Your task to perform on an android device: check android version Image 0: 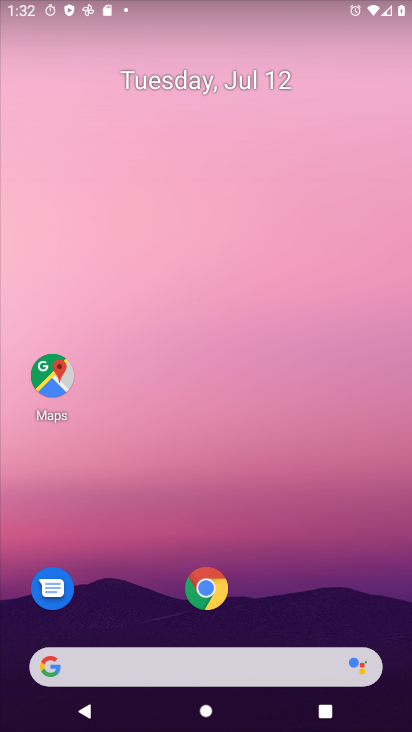
Step 0: click (205, 584)
Your task to perform on an android device: check android version Image 1: 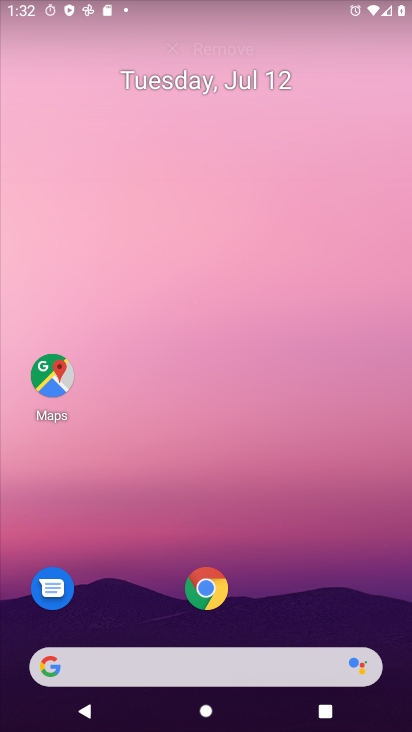
Step 1: click (312, 434)
Your task to perform on an android device: check android version Image 2: 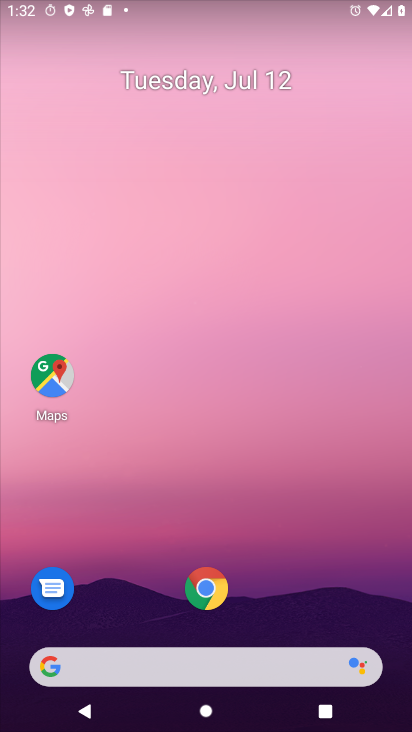
Step 2: click (212, 574)
Your task to perform on an android device: check android version Image 3: 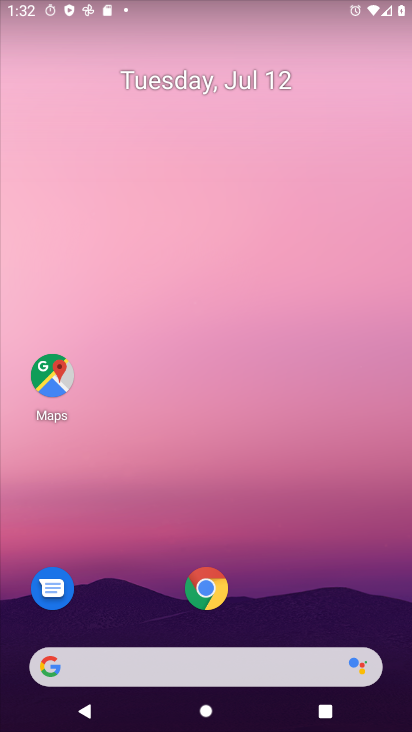
Step 3: click (316, 441)
Your task to perform on an android device: check android version Image 4: 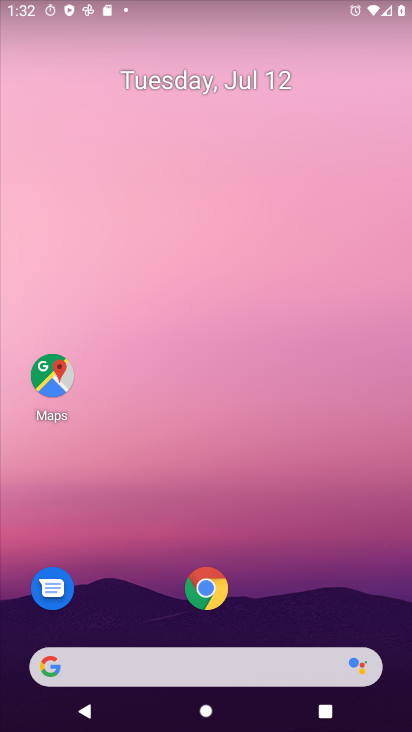
Step 4: click (213, 581)
Your task to perform on an android device: check android version Image 5: 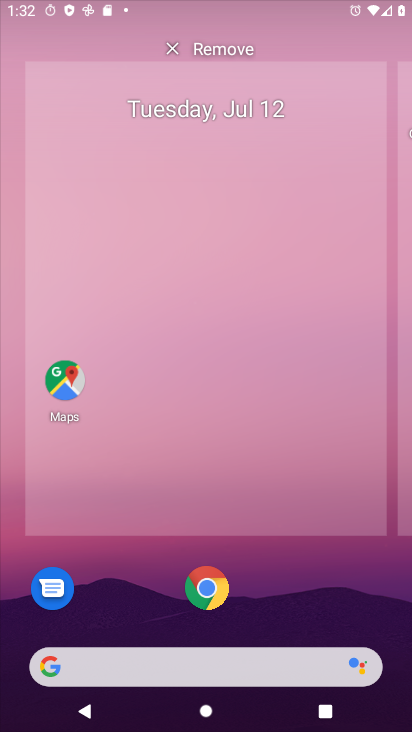
Step 5: click (319, 440)
Your task to perform on an android device: check android version Image 6: 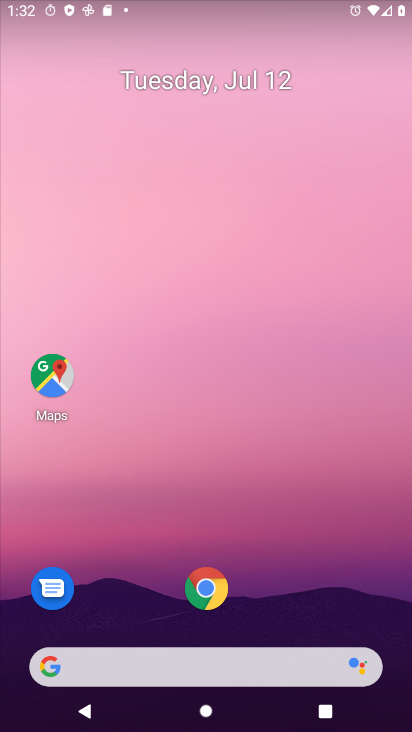
Step 6: click (215, 576)
Your task to perform on an android device: check android version Image 7: 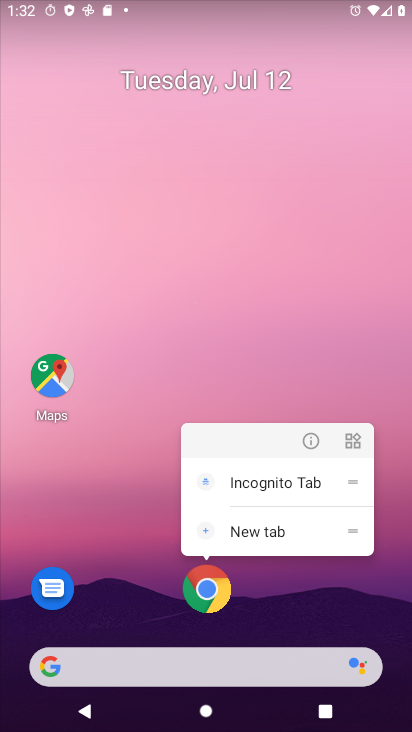
Step 7: click (311, 434)
Your task to perform on an android device: check android version Image 8: 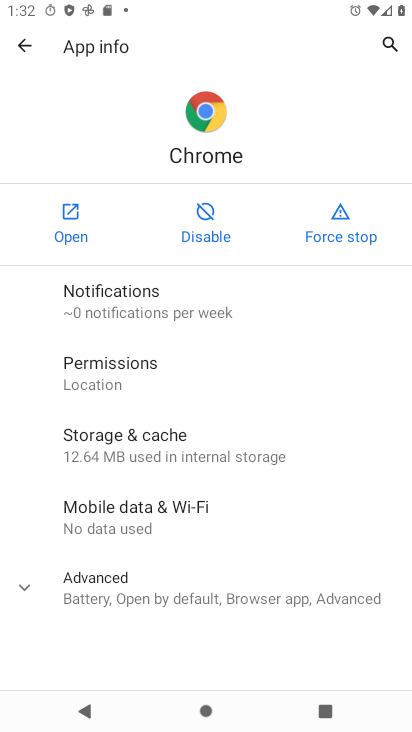
Step 8: click (151, 584)
Your task to perform on an android device: check android version Image 9: 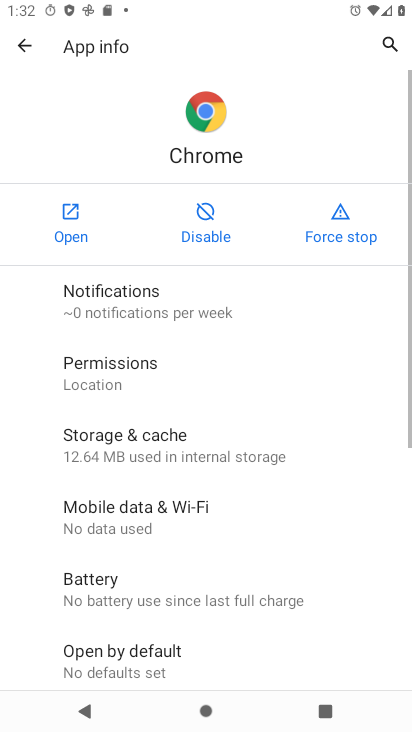
Step 9: task complete